Your task to perform on an android device: Open display settings Image 0: 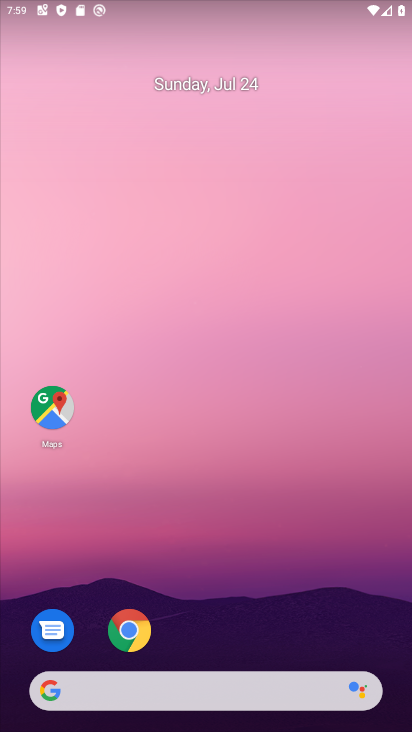
Step 0: drag from (184, 641) to (182, 213)
Your task to perform on an android device: Open display settings Image 1: 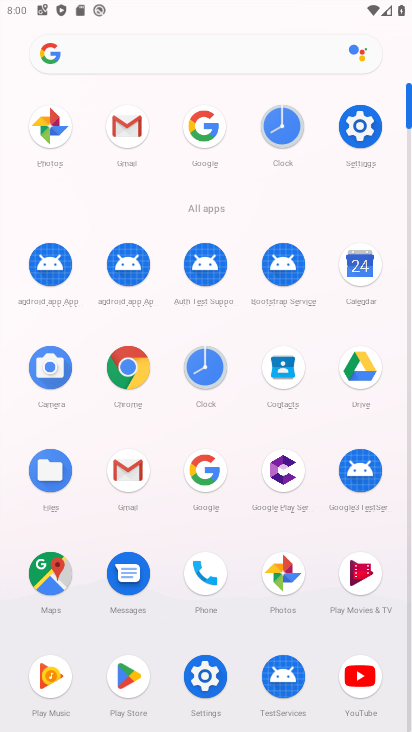
Step 1: click (367, 137)
Your task to perform on an android device: Open display settings Image 2: 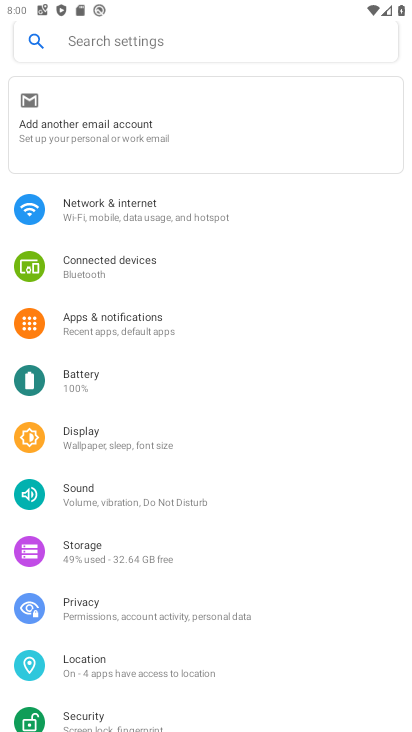
Step 2: click (130, 425)
Your task to perform on an android device: Open display settings Image 3: 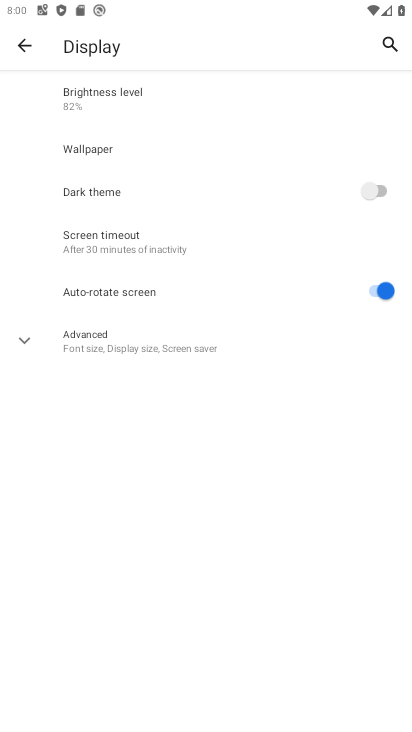
Step 3: task complete